Your task to perform on an android device: Go to notification settings Image 0: 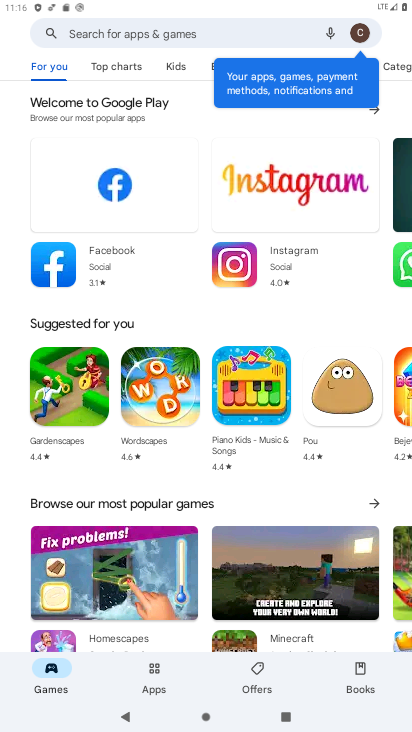
Step 0: press home button
Your task to perform on an android device: Go to notification settings Image 1: 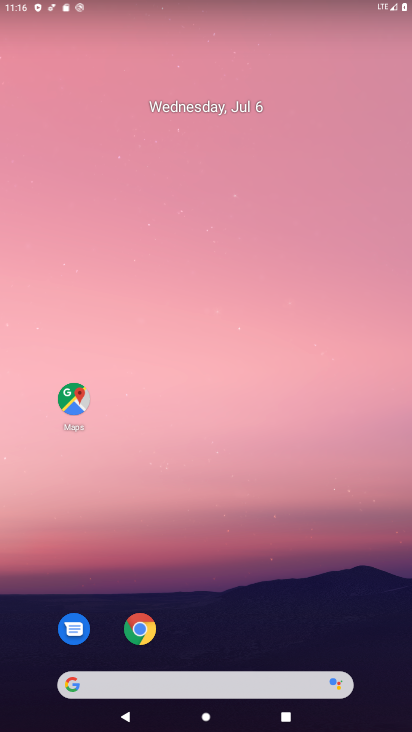
Step 1: drag from (208, 601) to (213, 104)
Your task to perform on an android device: Go to notification settings Image 2: 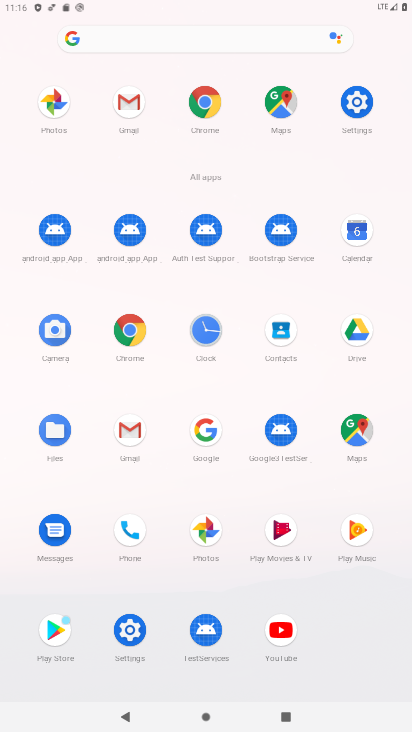
Step 2: click (339, 108)
Your task to perform on an android device: Go to notification settings Image 3: 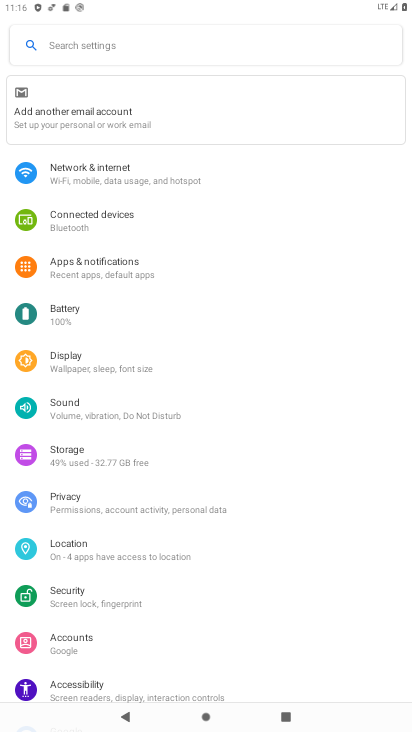
Step 3: click (128, 266)
Your task to perform on an android device: Go to notification settings Image 4: 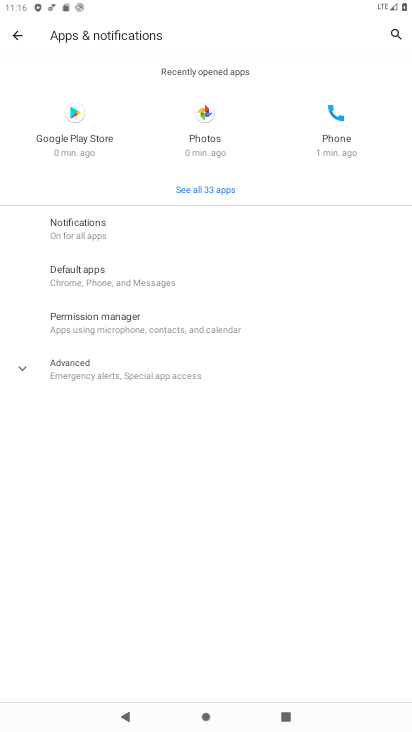
Step 4: click (122, 233)
Your task to perform on an android device: Go to notification settings Image 5: 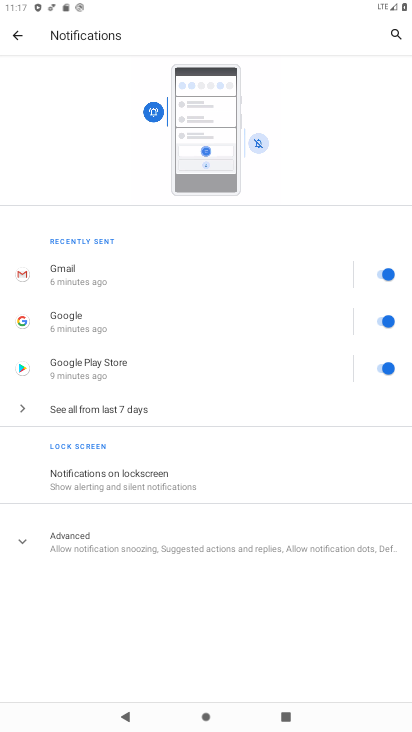
Step 5: task complete